Your task to perform on an android device: turn off data saver in the chrome app Image 0: 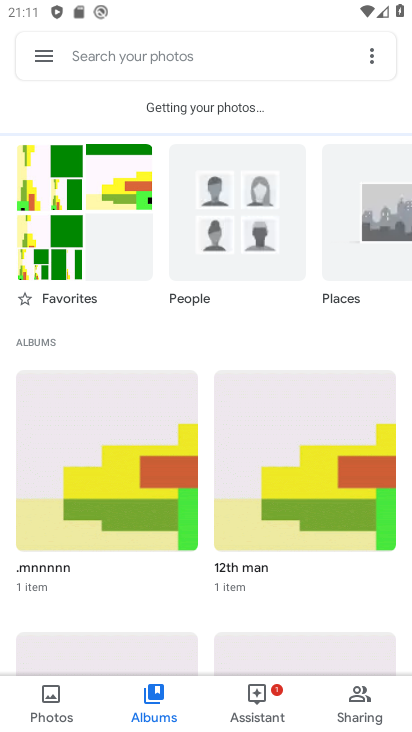
Step 0: press home button
Your task to perform on an android device: turn off data saver in the chrome app Image 1: 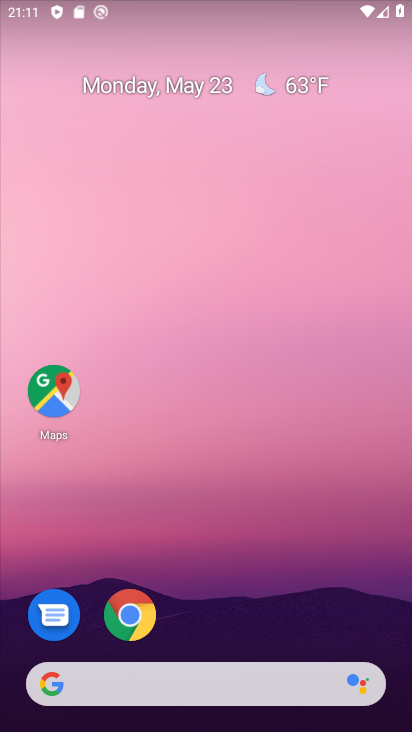
Step 1: click (118, 627)
Your task to perform on an android device: turn off data saver in the chrome app Image 2: 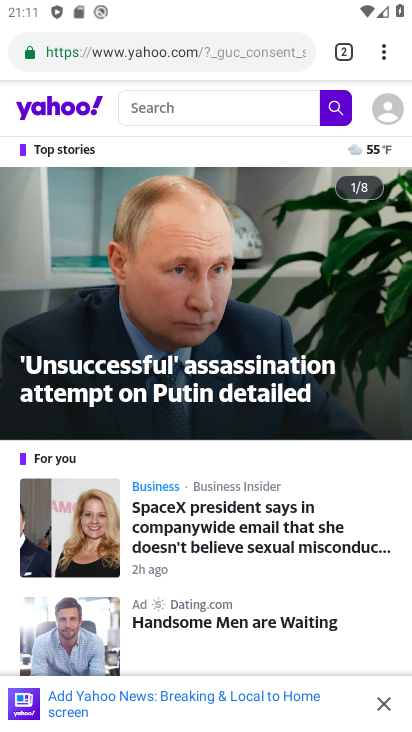
Step 2: click (379, 55)
Your task to perform on an android device: turn off data saver in the chrome app Image 3: 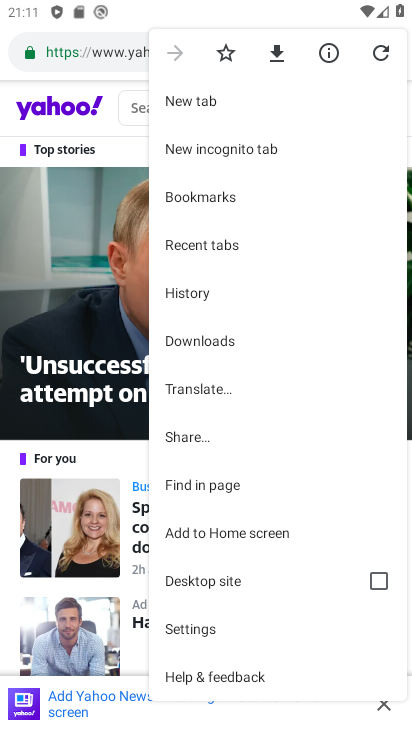
Step 3: click (215, 636)
Your task to perform on an android device: turn off data saver in the chrome app Image 4: 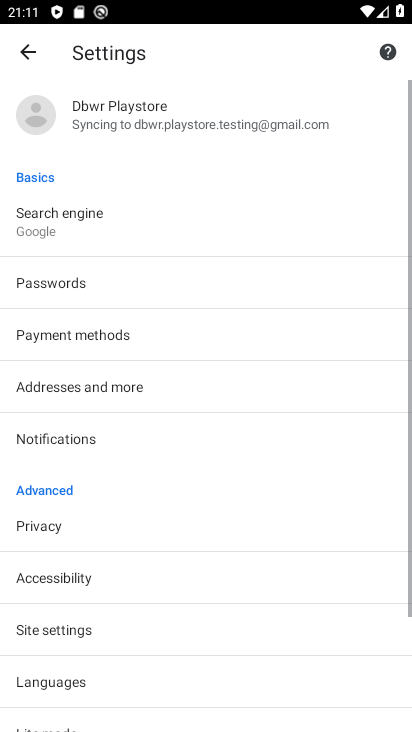
Step 4: drag from (203, 602) to (177, 250)
Your task to perform on an android device: turn off data saver in the chrome app Image 5: 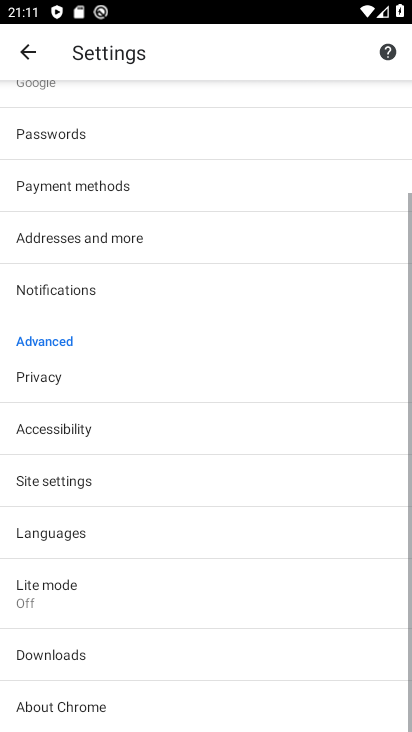
Step 5: click (42, 597)
Your task to perform on an android device: turn off data saver in the chrome app Image 6: 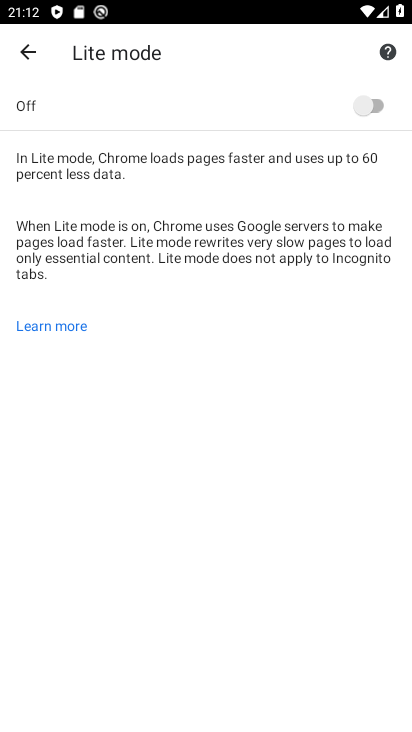
Step 6: task complete